Your task to perform on an android device: Search for vegetarian restaurants on Maps Image 0: 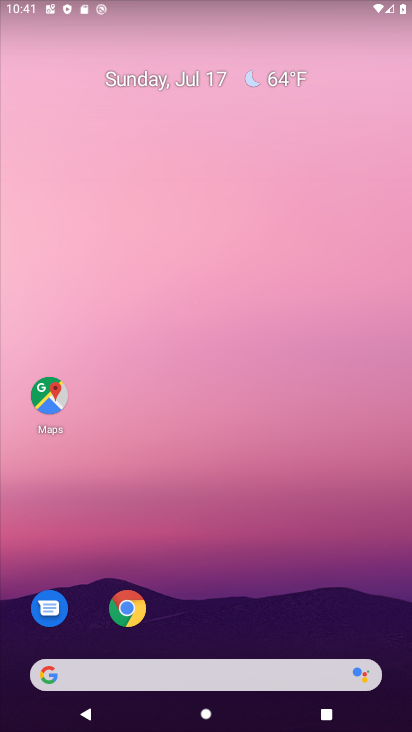
Step 0: click (46, 376)
Your task to perform on an android device: Search for vegetarian restaurants on Maps Image 1: 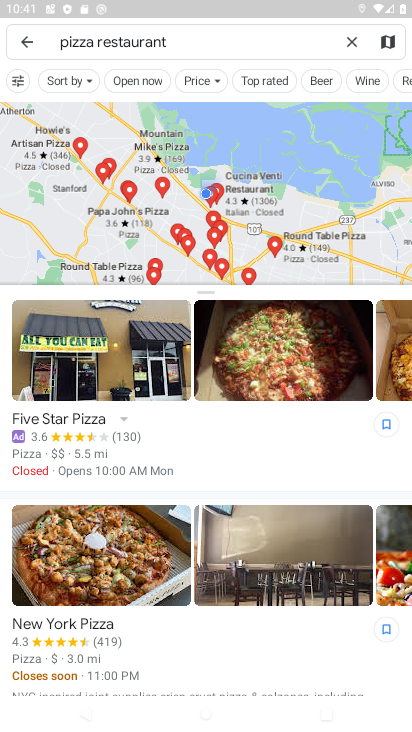
Step 1: click (350, 40)
Your task to perform on an android device: Search for vegetarian restaurants on Maps Image 2: 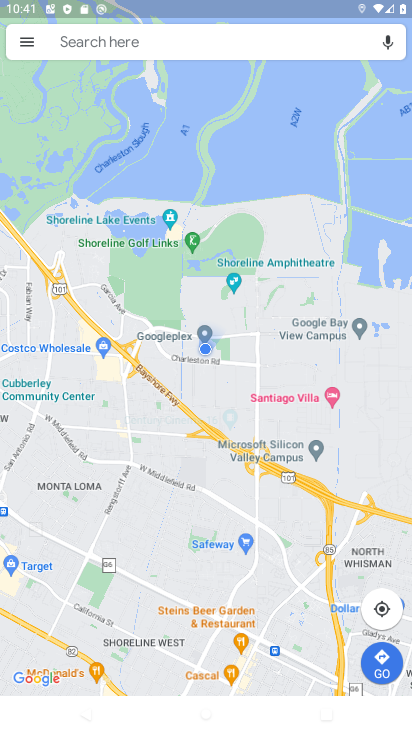
Step 2: click (70, 35)
Your task to perform on an android device: Search for vegetarian restaurants on Maps Image 3: 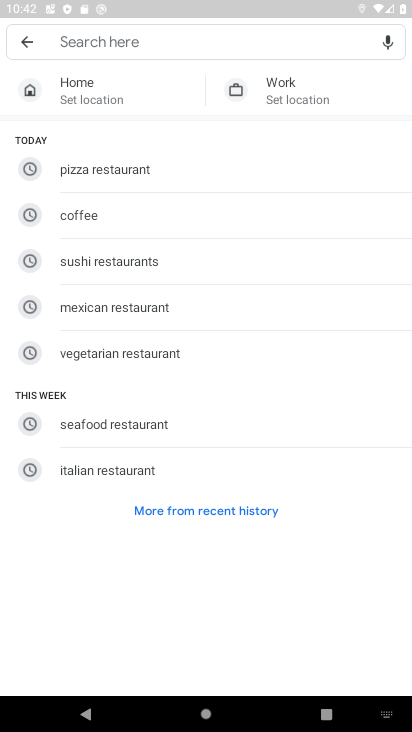
Step 3: click (158, 350)
Your task to perform on an android device: Search for vegetarian restaurants on Maps Image 4: 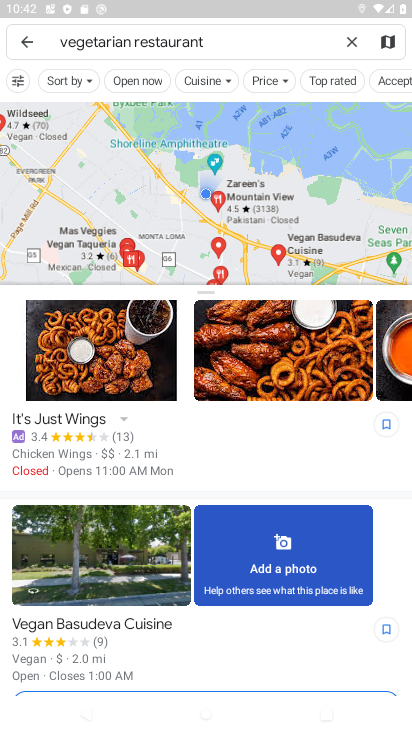
Step 4: task complete